Your task to perform on an android device: clear all cookies in the chrome app Image 0: 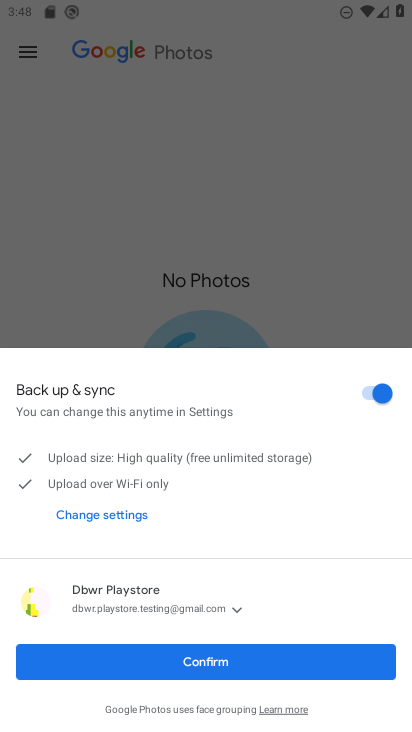
Step 0: press home button
Your task to perform on an android device: clear all cookies in the chrome app Image 1: 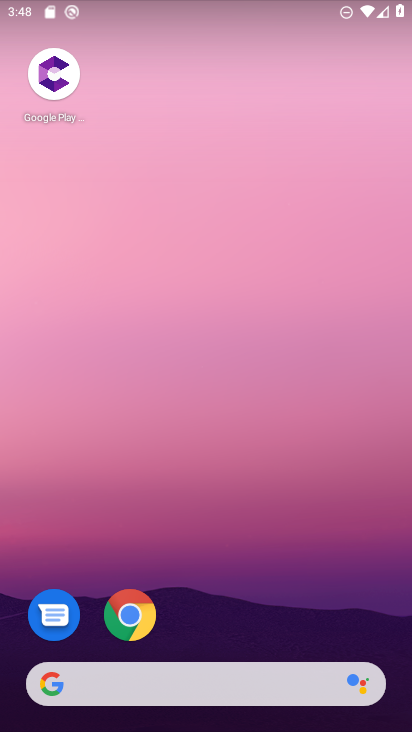
Step 1: click (139, 606)
Your task to perform on an android device: clear all cookies in the chrome app Image 2: 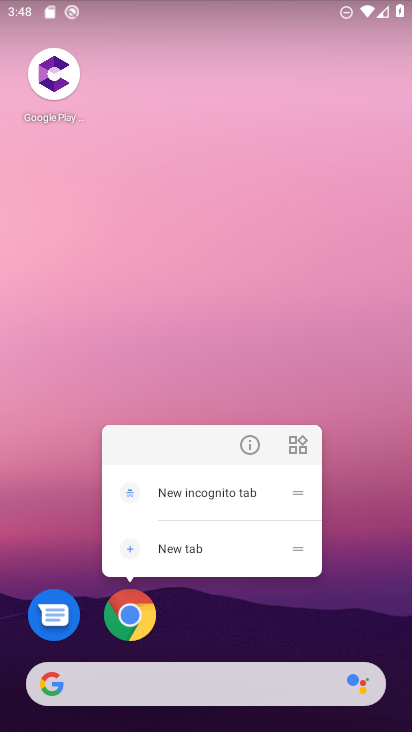
Step 2: click (133, 626)
Your task to perform on an android device: clear all cookies in the chrome app Image 3: 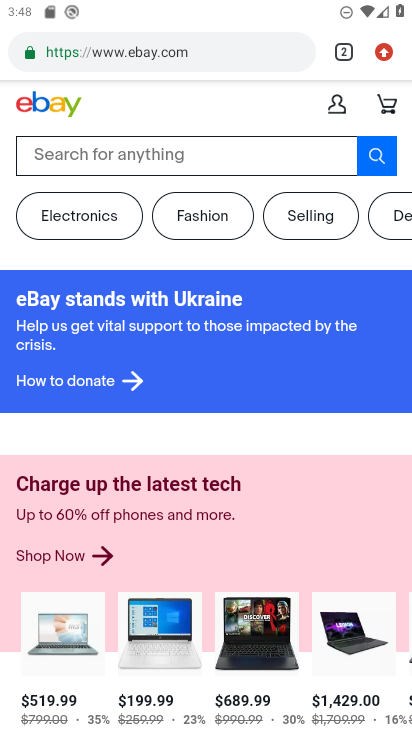
Step 3: click (388, 47)
Your task to perform on an android device: clear all cookies in the chrome app Image 4: 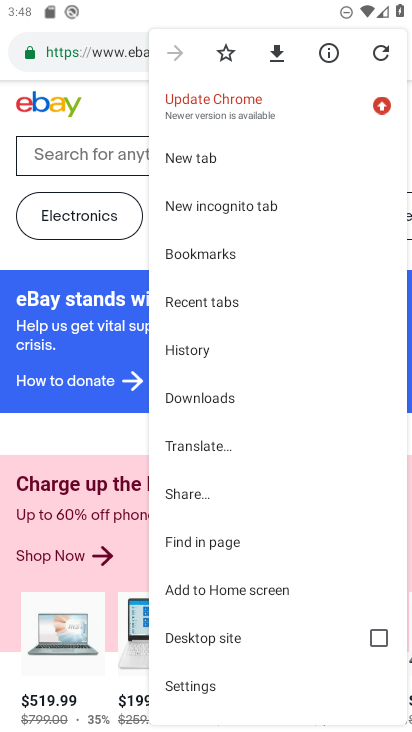
Step 4: click (189, 351)
Your task to perform on an android device: clear all cookies in the chrome app Image 5: 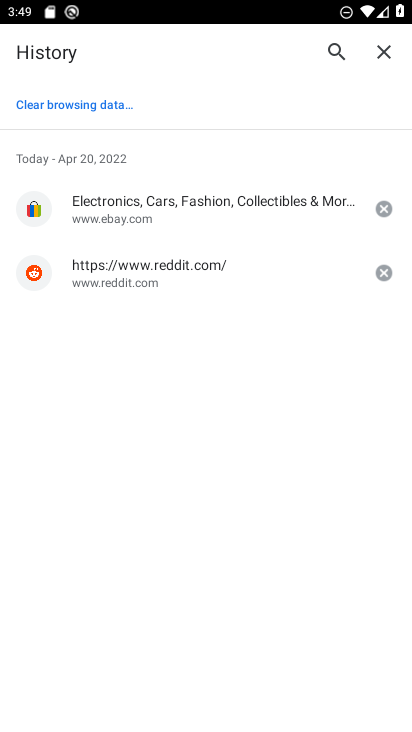
Step 5: click (112, 102)
Your task to perform on an android device: clear all cookies in the chrome app Image 6: 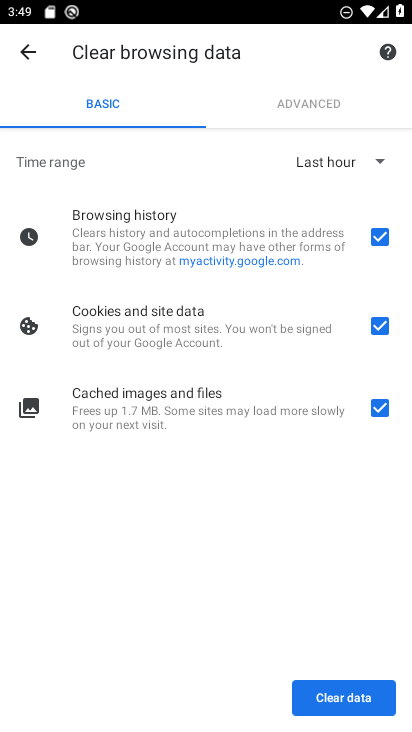
Step 6: click (351, 158)
Your task to perform on an android device: clear all cookies in the chrome app Image 7: 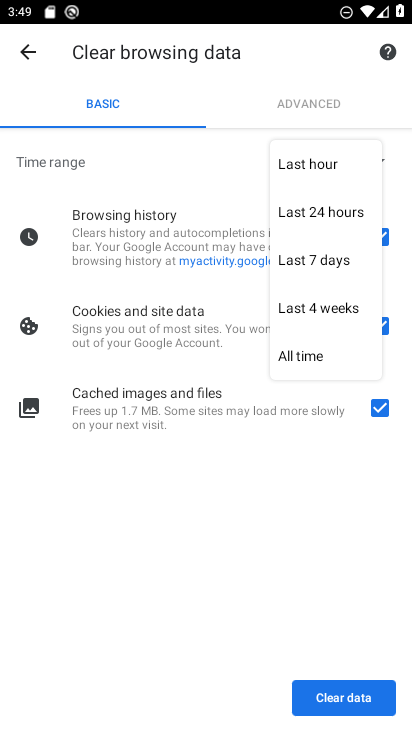
Step 7: click (330, 350)
Your task to perform on an android device: clear all cookies in the chrome app Image 8: 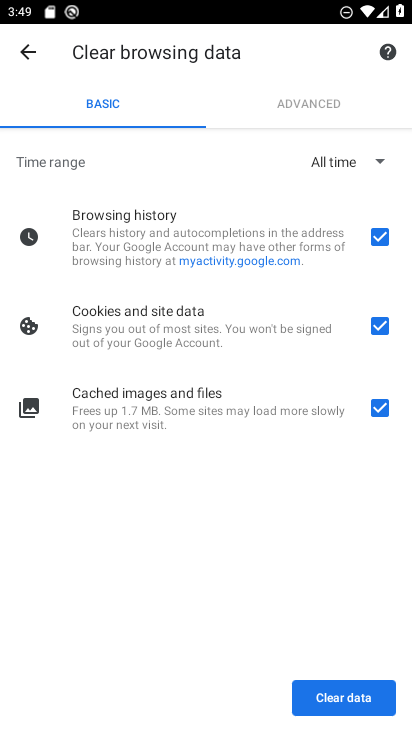
Step 8: click (351, 699)
Your task to perform on an android device: clear all cookies in the chrome app Image 9: 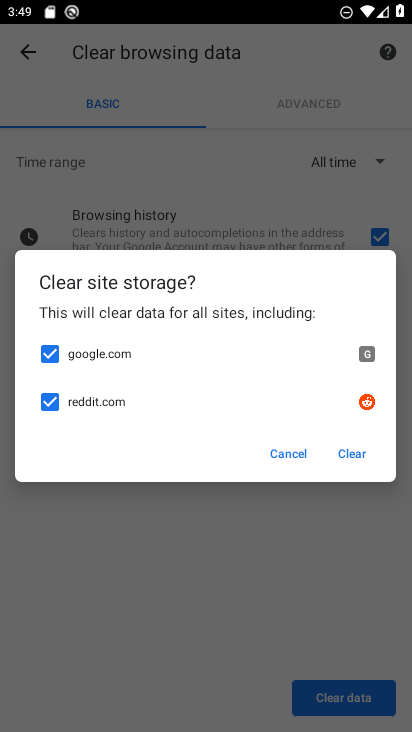
Step 9: click (358, 445)
Your task to perform on an android device: clear all cookies in the chrome app Image 10: 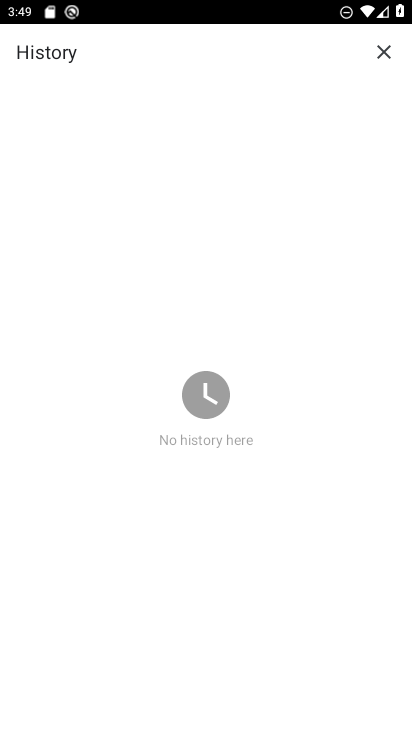
Step 10: task complete